Your task to perform on an android device: open app "Google Photos" Image 0: 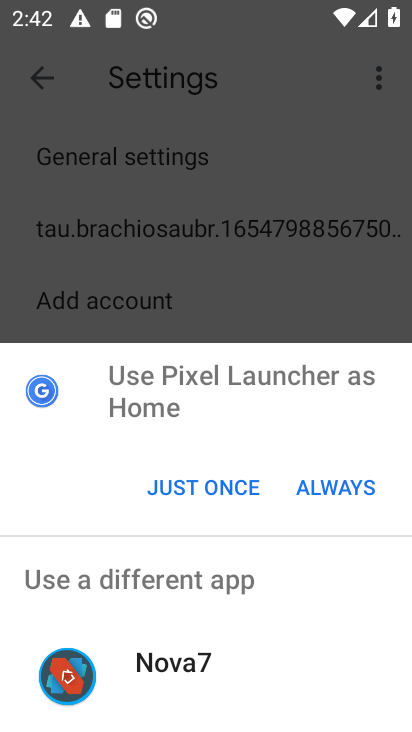
Step 0: click (245, 487)
Your task to perform on an android device: open app "Google Photos" Image 1: 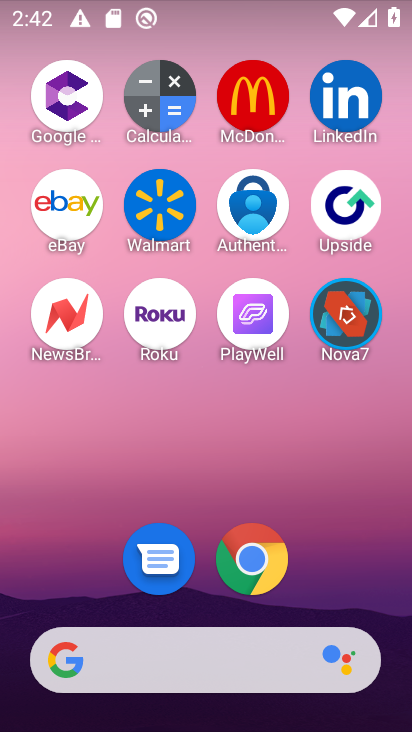
Step 1: drag from (234, 644) to (181, 136)
Your task to perform on an android device: open app "Google Photos" Image 2: 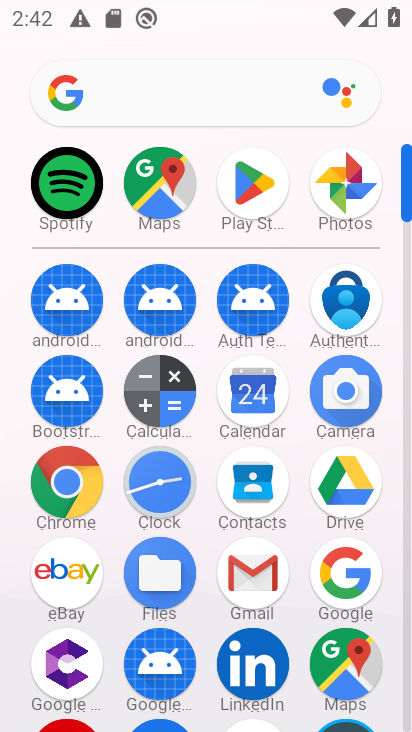
Step 2: click (258, 186)
Your task to perform on an android device: open app "Google Photos" Image 3: 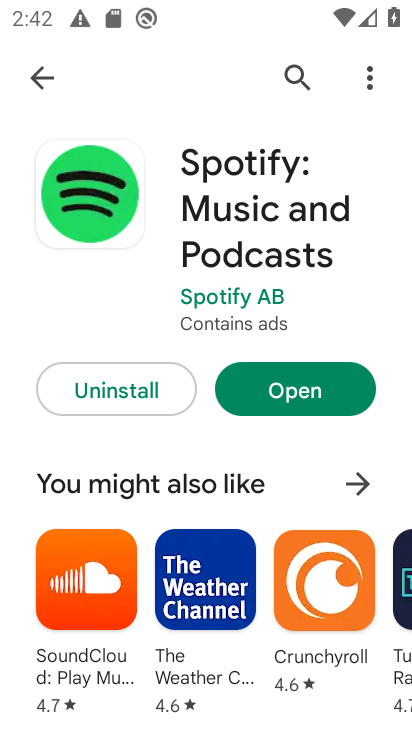
Step 3: click (281, 80)
Your task to perform on an android device: open app "Google Photos" Image 4: 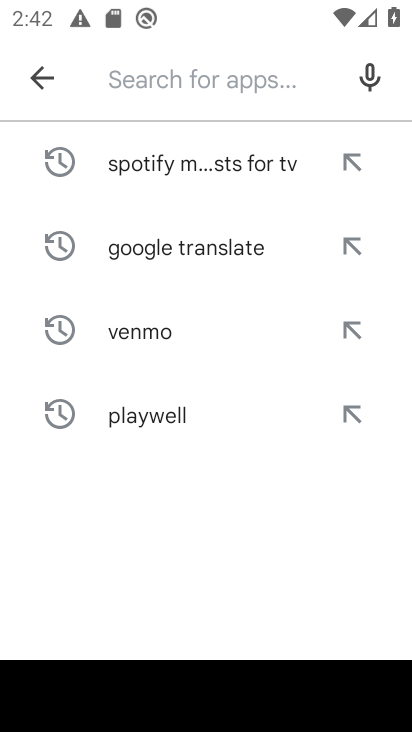
Step 4: type "Google Photos"
Your task to perform on an android device: open app "Google Photos" Image 5: 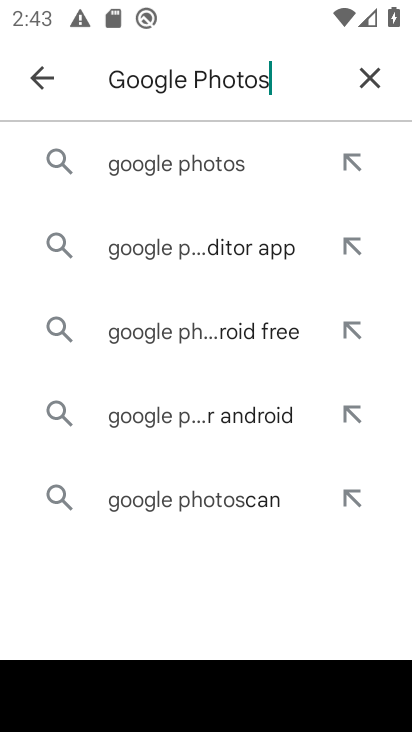
Step 5: click (210, 172)
Your task to perform on an android device: open app "Google Photos" Image 6: 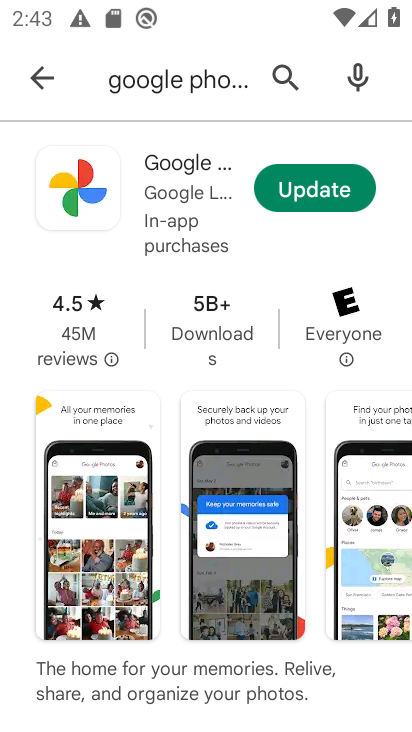
Step 6: task complete